Your task to perform on an android device: Check the weather Image 0: 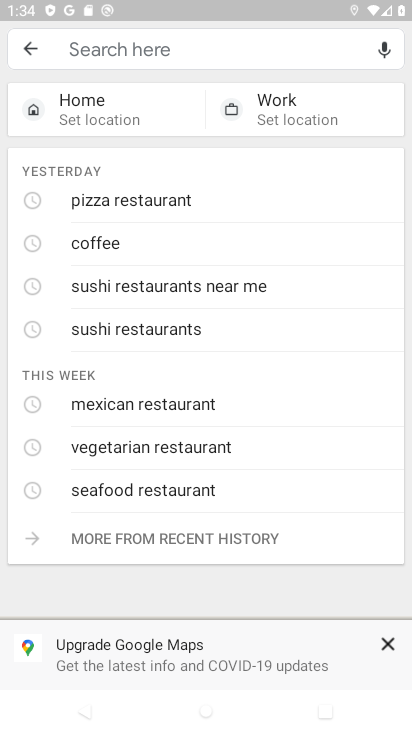
Step 0: press home button
Your task to perform on an android device: Check the weather Image 1: 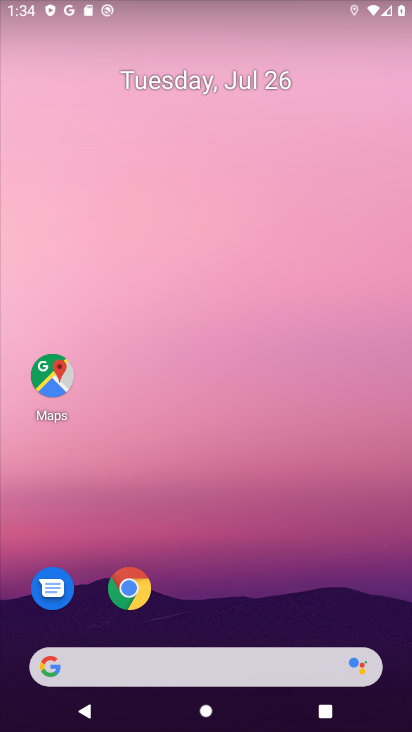
Step 1: click (214, 662)
Your task to perform on an android device: Check the weather Image 2: 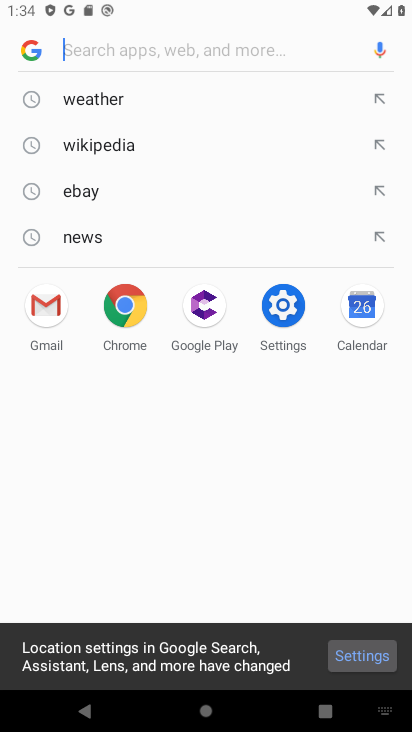
Step 2: click (95, 102)
Your task to perform on an android device: Check the weather Image 3: 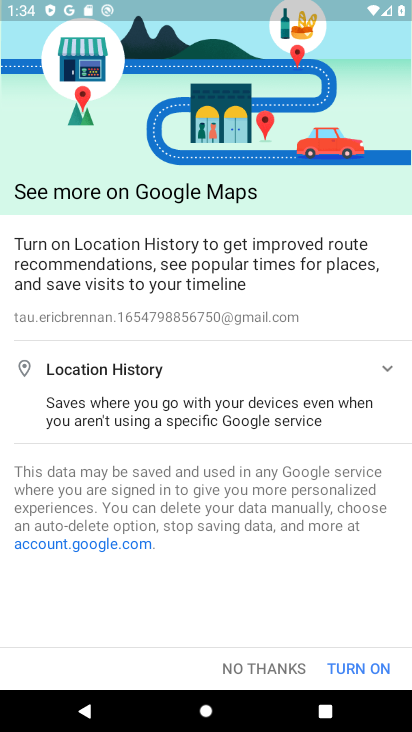
Step 3: click (355, 675)
Your task to perform on an android device: Check the weather Image 4: 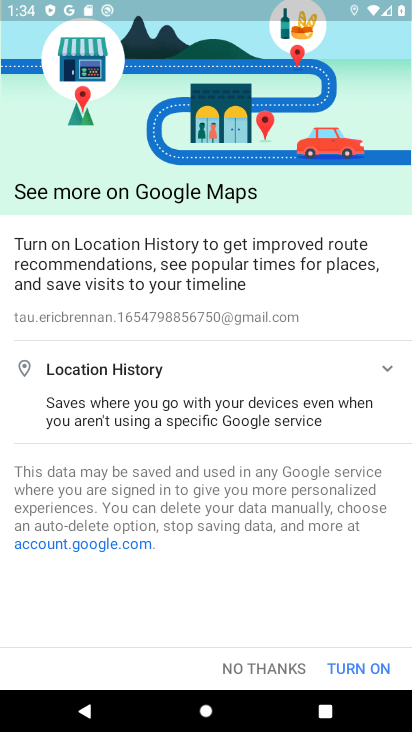
Step 4: click (352, 673)
Your task to perform on an android device: Check the weather Image 5: 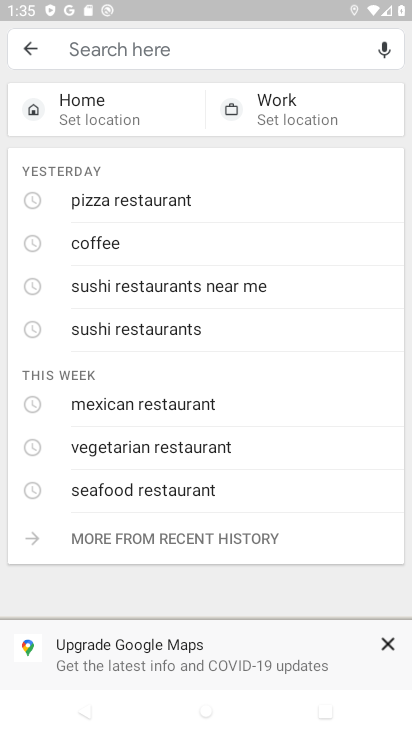
Step 5: click (386, 641)
Your task to perform on an android device: Check the weather Image 6: 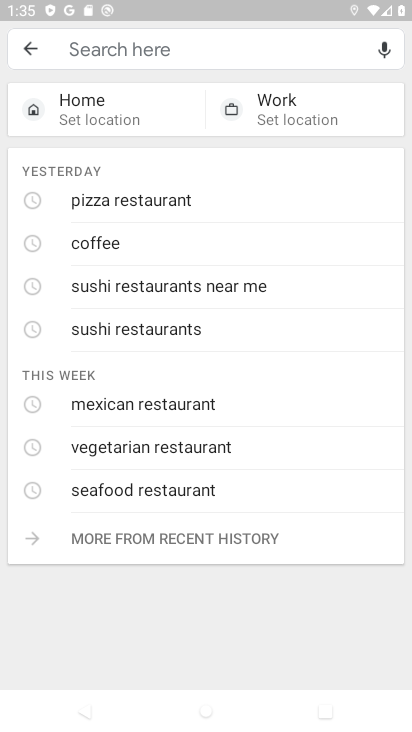
Step 6: type "weather"
Your task to perform on an android device: Check the weather Image 7: 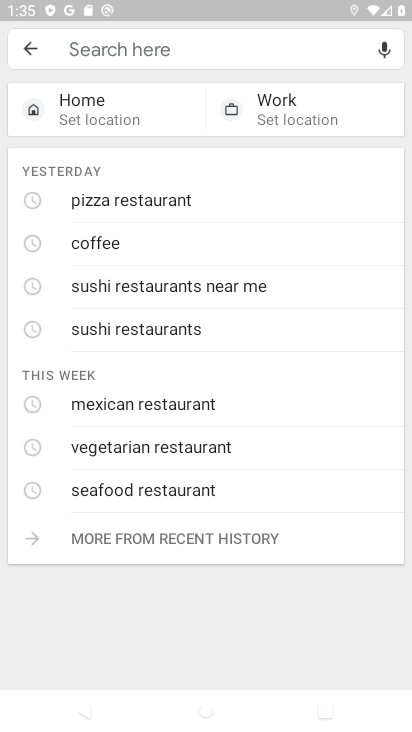
Step 7: click (122, 53)
Your task to perform on an android device: Check the weather Image 8: 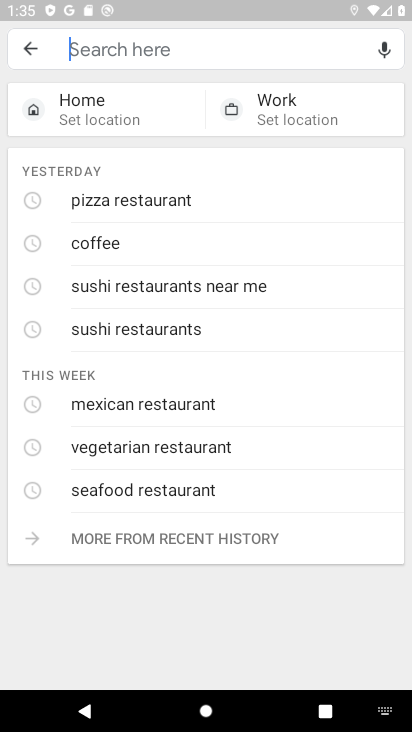
Step 8: type "weather"
Your task to perform on an android device: Check the weather Image 9: 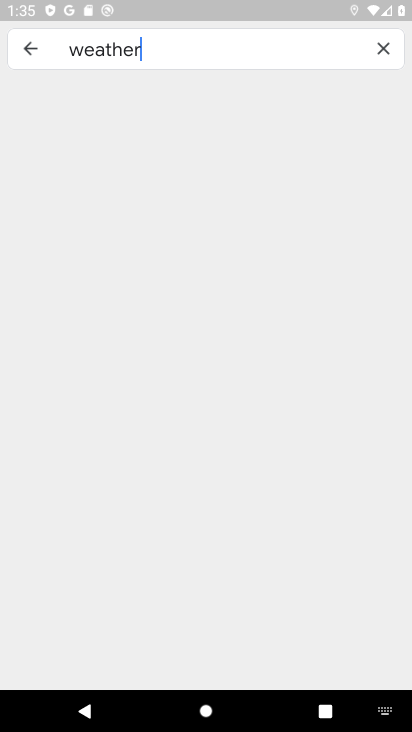
Step 9: type ""
Your task to perform on an android device: Check the weather Image 10: 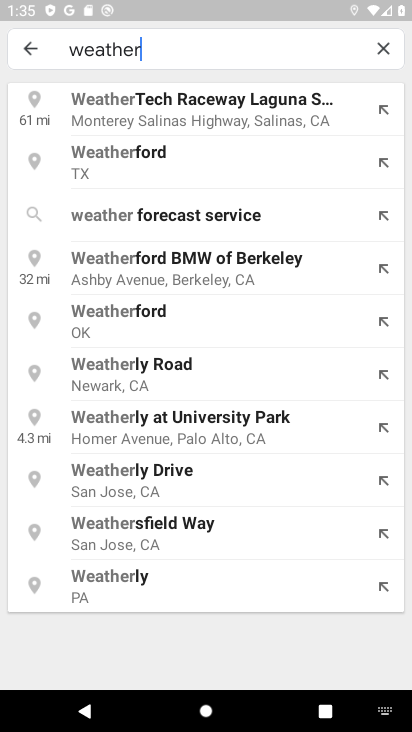
Step 10: task complete